Your task to perform on an android device: change the clock display to digital Image 0: 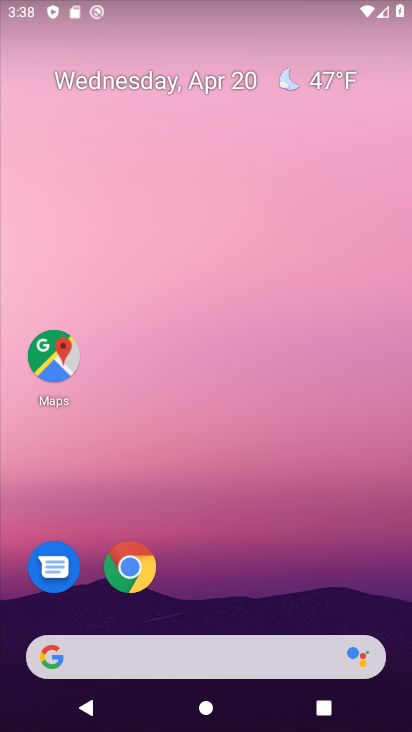
Step 0: drag from (197, 609) to (230, 52)
Your task to perform on an android device: change the clock display to digital Image 1: 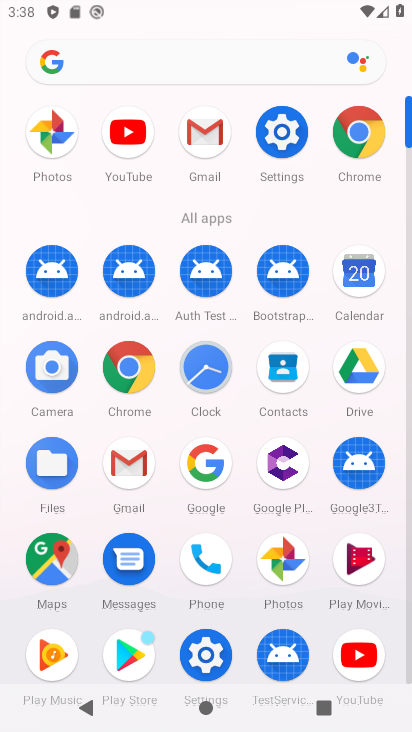
Step 1: click (225, 367)
Your task to perform on an android device: change the clock display to digital Image 2: 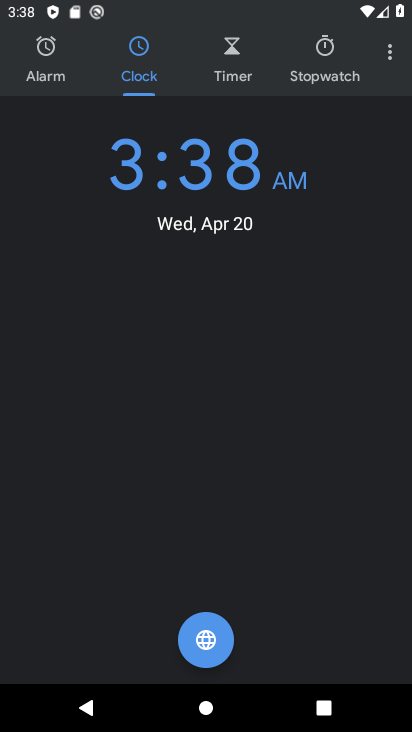
Step 2: click (387, 41)
Your task to perform on an android device: change the clock display to digital Image 3: 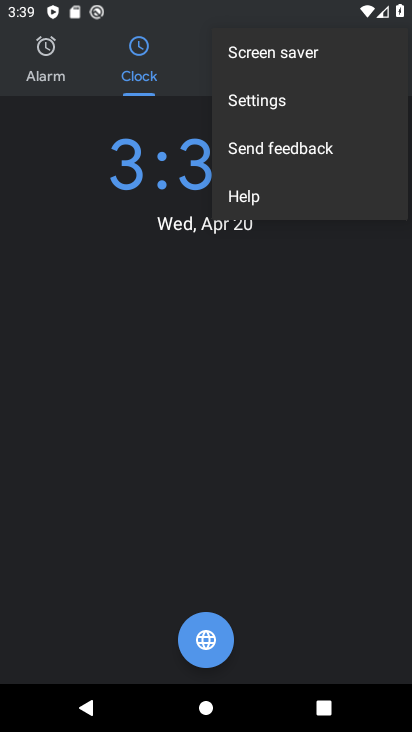
Step 3: click (317, 94)
Your task to perform on an android device: change the clock display to digital Image 4: 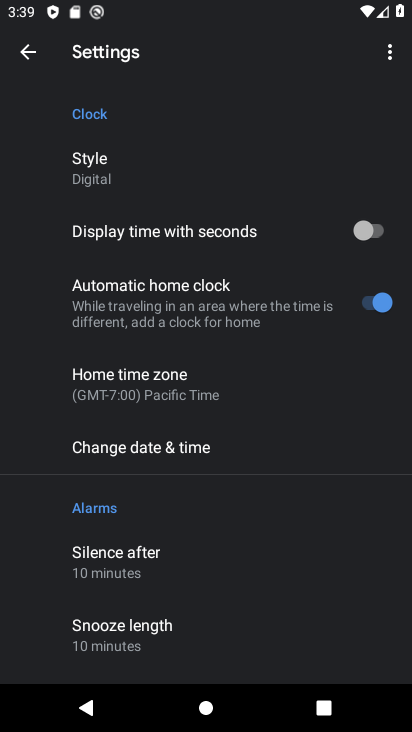
Step 4: task complete